Your task to perform on an android device: set the stopwatch Image 0: 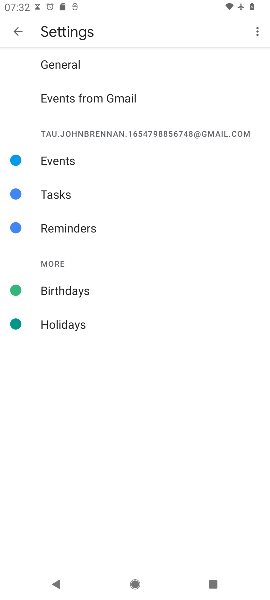
Step 0: press home button
Your task to perform on an android device: set the stopwatch Image 1: 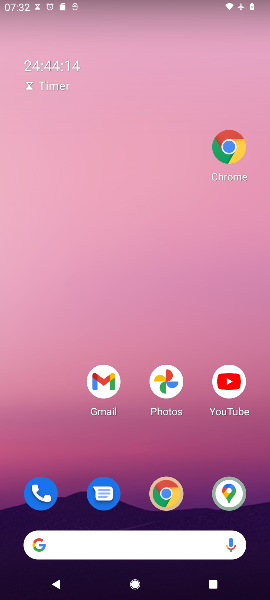
Step 1: drag from (132, 521) to (100, 207)
Your task to perform on an android device: set the stopwatch Image 2: 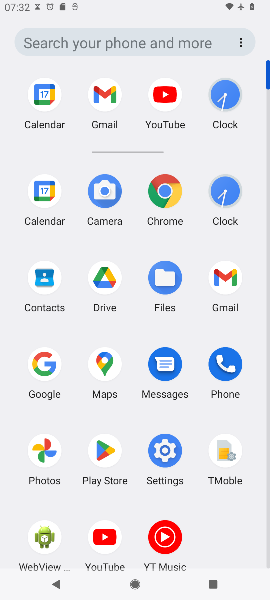
Step 2: click (228, 89)
Your task to perform on an android device: set the stopwatch Image 3: 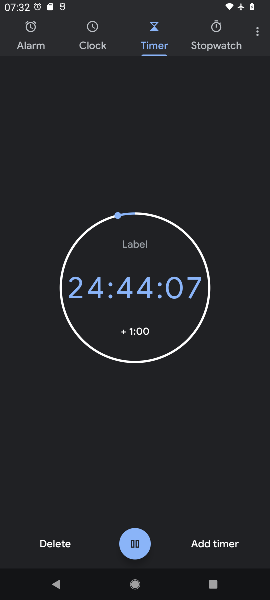
Step 3: click (216, 31)
Your task to perform on an android device: set the stopwatch Image 4: 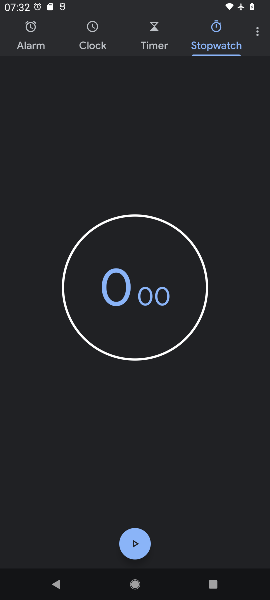
Step 4: click (135, 547)
Your task to perform on an android device: set the stopwatch Image 5: 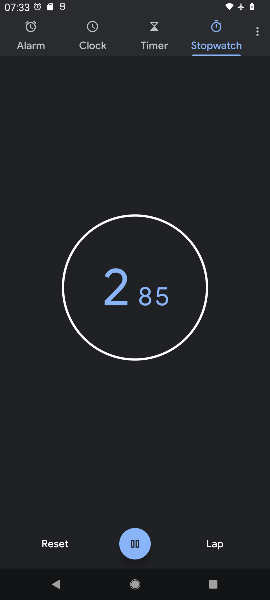
Step 5: task complete